Your task to perform on an android device: change alarm snooze length Image 0: 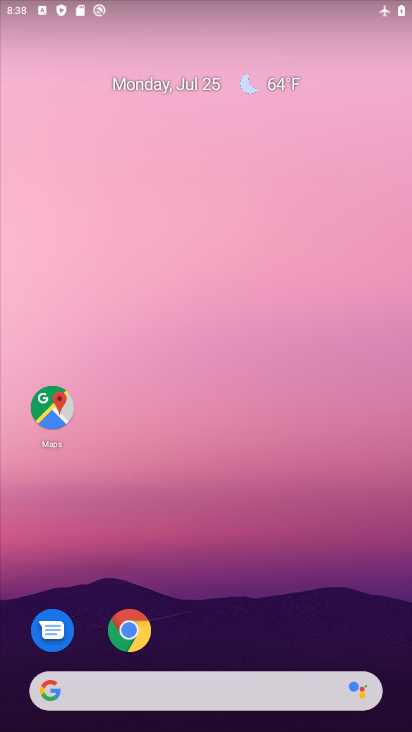
Step 0: drag from (400, 633) to (383, 224)
Your task to perform on an android device: change alarm snooze length Image 1: 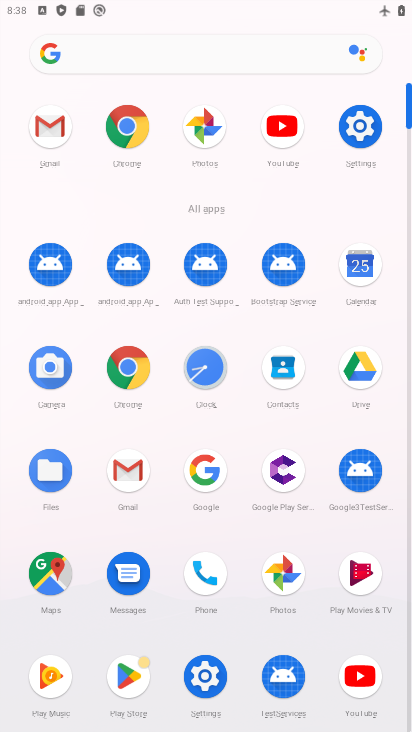
Step 1: click (205, 366)
Your task to perform on an android device: change alarm snooze length Image 2: 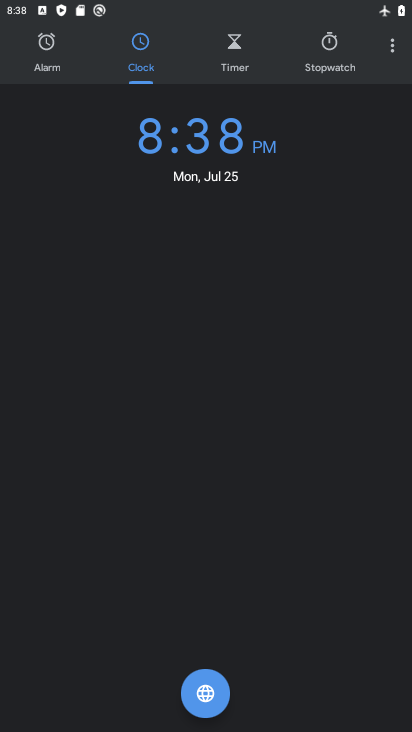
Step 2: click (393, 55)
Your task to perform on an android device: change alarm snooze length Image 3: 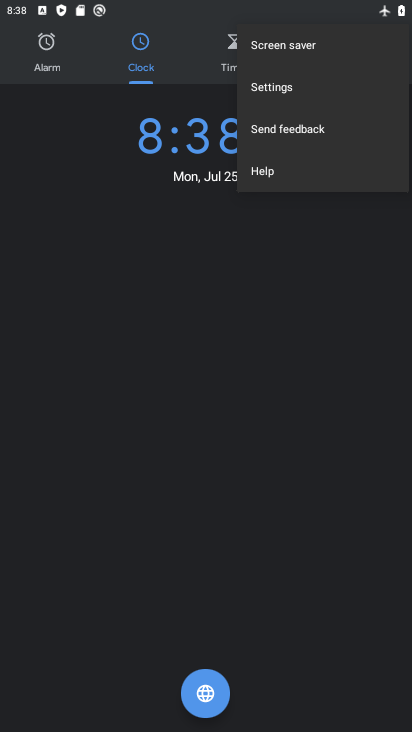
Step 3: click (274, 83)
Your task to perform on an android device: change alarm snooze length Image 4: 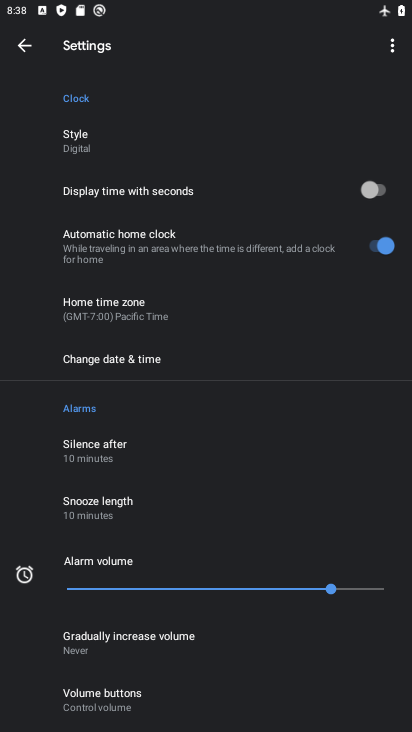
Step 4: click (100, 504)
Your task to perform on an android device: change alarm snooze length Image 5: 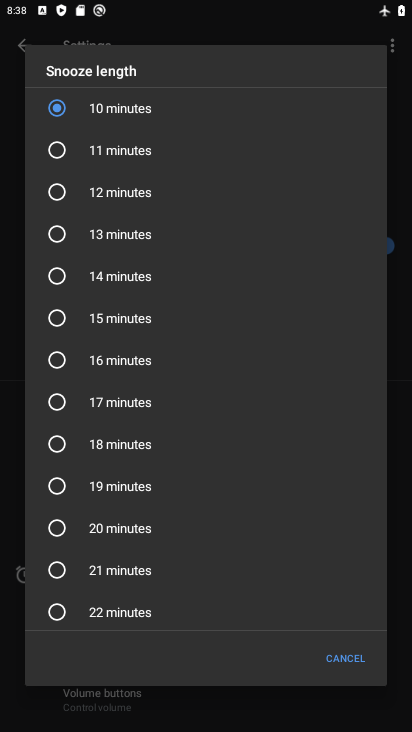
Step 5: click (51, 320)
Your task to perform on an android device: change alarm snooze length Image 6: 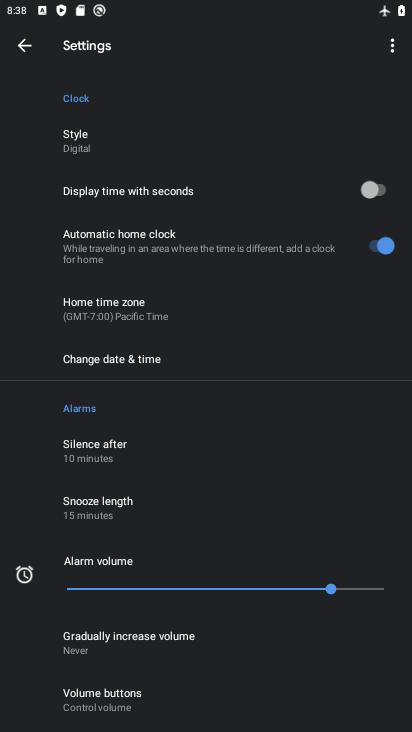
Step 6: task complete